Your task to perform on an android device: Open Google Maps and go to "Timeline" Image 0: 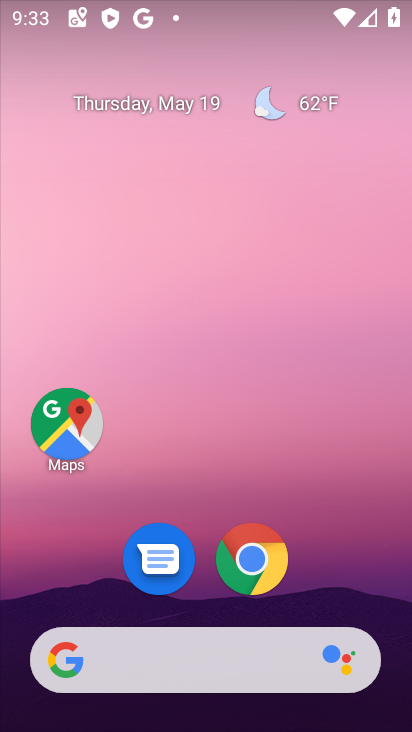
Step 0: click (88, 420)
Your task to perform on an android device: Open Google Maps and go to "Timeline" Image 1: 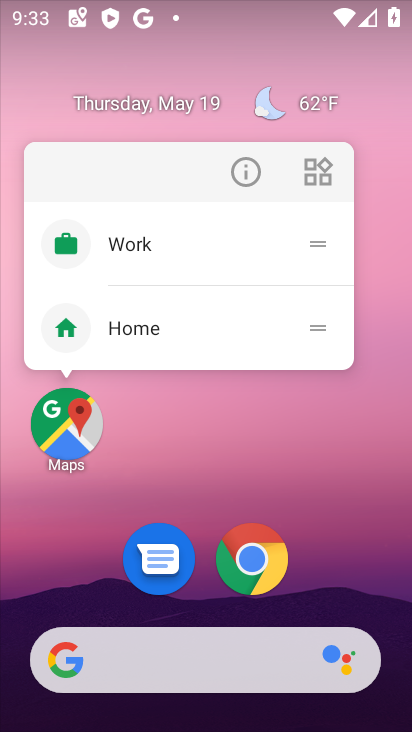
Step 1: click (82, 428)
Your task to perform on an android device: Open Google Maps and go to "Timeline" Image 2: 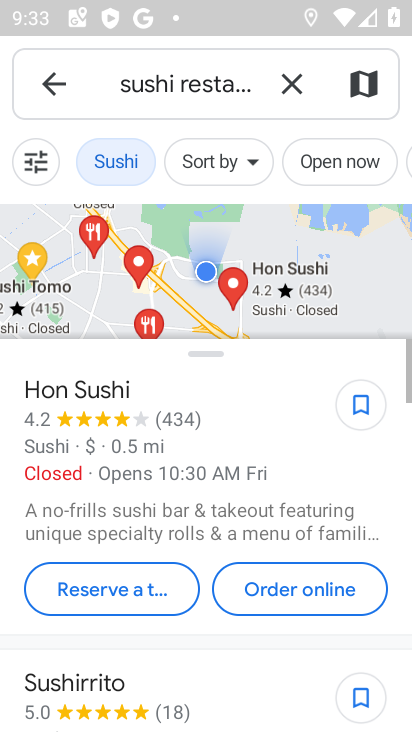
Step 2: click (64, 74)
Your task to perform on an android device: Open Google Maps and go to "Timeline" Image 3: 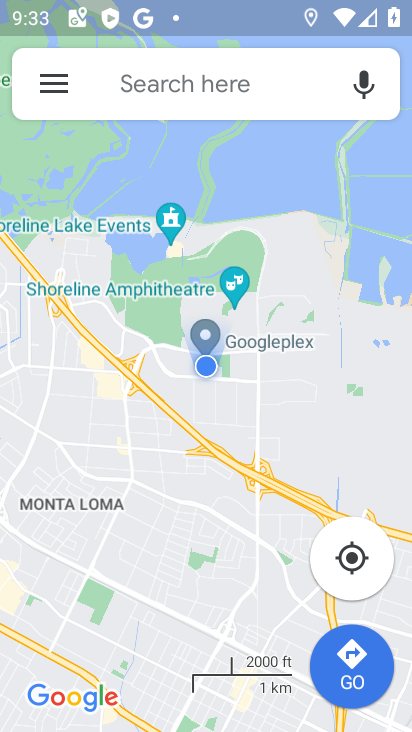
Step 3: click (64, 74)
Your task to perform on an android device: Open Google Maps and go to "Timeline" Image 4: 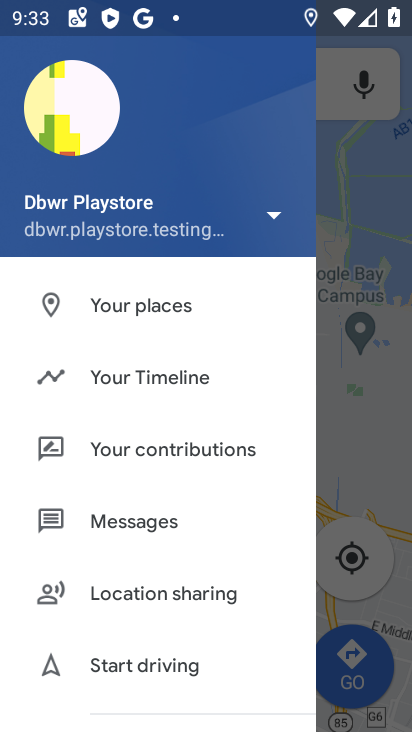
Step 4: click (176, 374)
Your task to perform on an android device: Open Google Maps and go to "Timeline" Image 5: 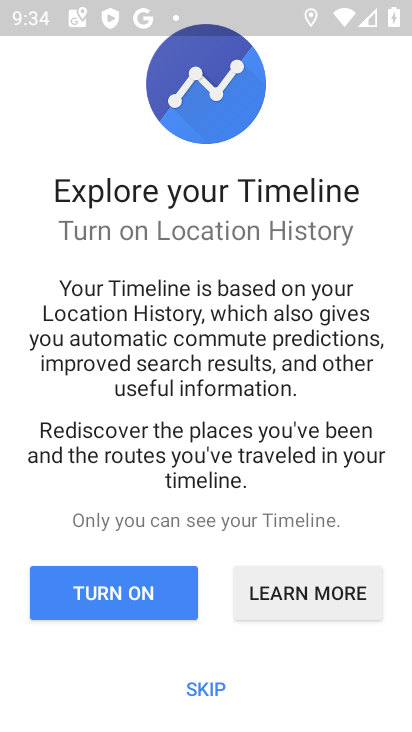
Step 5: click (198, 693)
Your task to perform on an android device: Open Google Maps and go to "Timeline" Image 6: 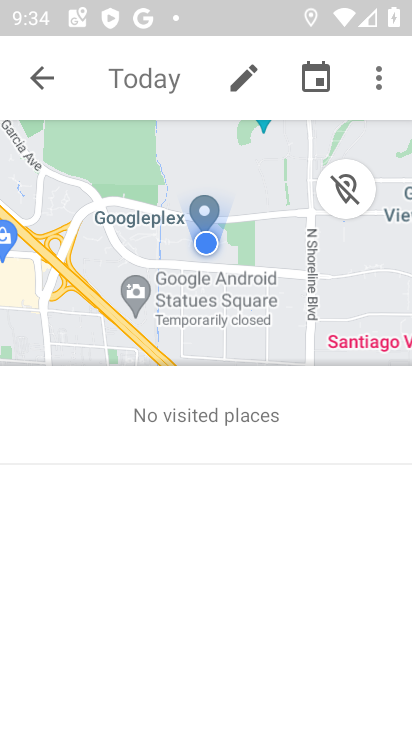
Step 6: task complete